Your task to perform on an android device: Search for Italian restaurants on Maps Image 0: 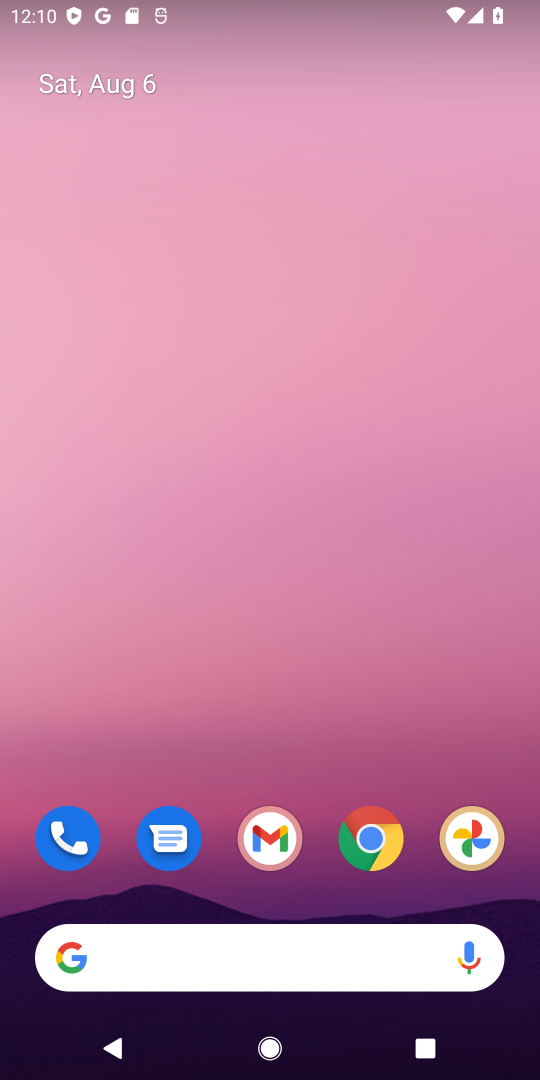
Step 0: drag from (235, 771) to (303, 26)
Your task to perform on an android device: Search for Italian restaurants on Maps Image 1: 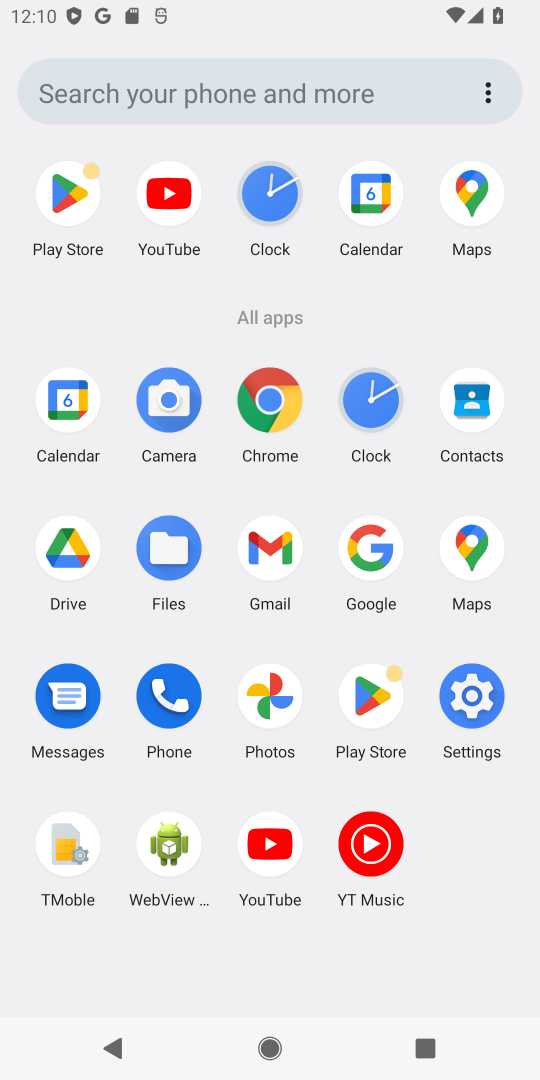
Step 1: click (463, 555)
Your task to perform on an android device: Search for Italian restaurants on Maps Image 2: 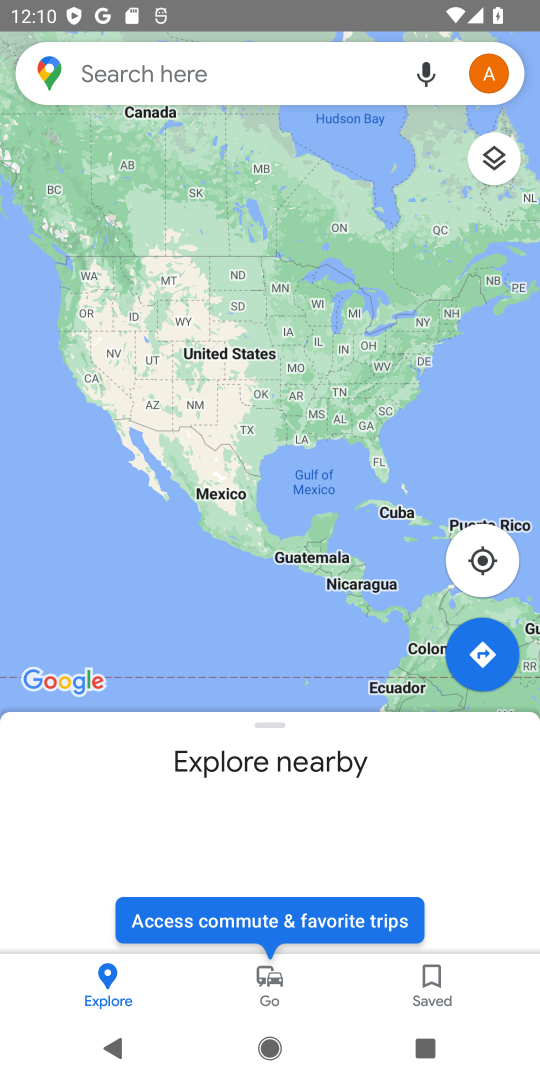
Step 2: click (147, 68)
Your task to perform on an android device: Search for Italian restaurants on Maps Image 3: 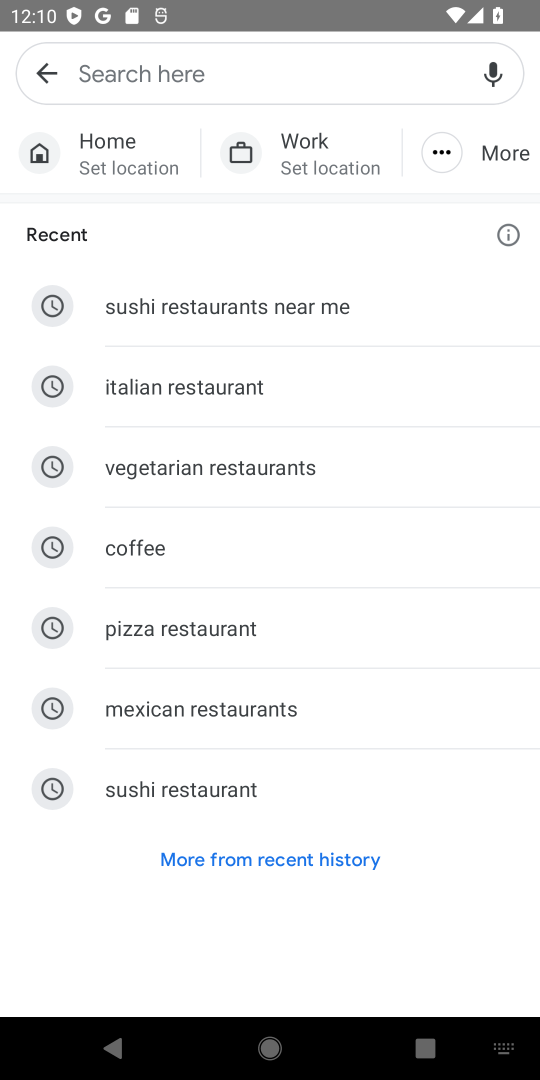
Step 3: type "italian restaurants"
Your task to perform on an android device: Search for Italian restaurants on Maps Image 4: 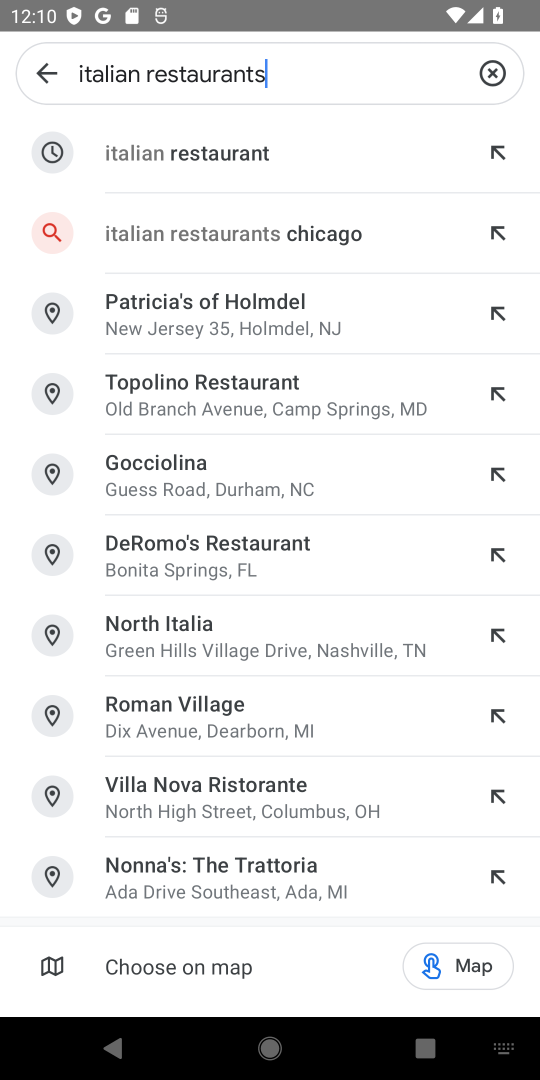
Step 4: click (327, 156)
Your task to perform on an android device: Search for Italian restaurants on Maps Image 5: 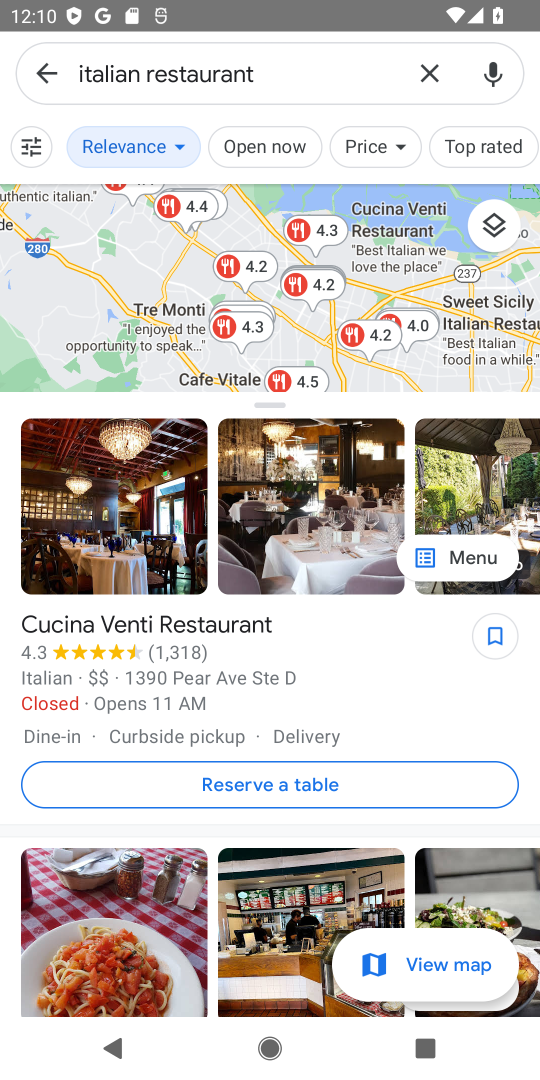
Step 5: task complete